Your task to perform on an android device: toggle location history Image 0: 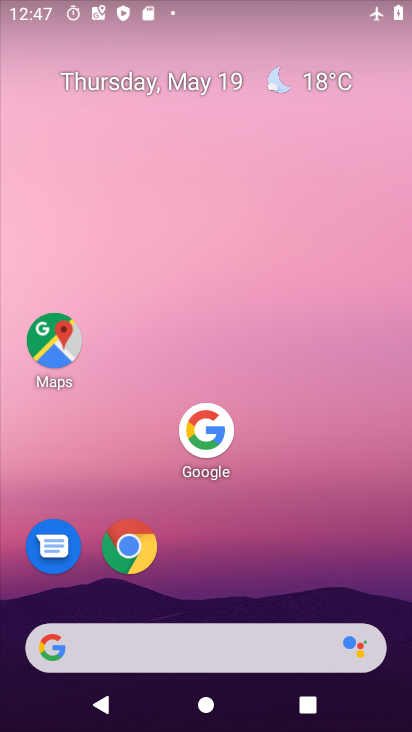
Step 0: drag from (266, 570) to (257, 86)
Your task to perform on an android device: toggle location history Image 1: 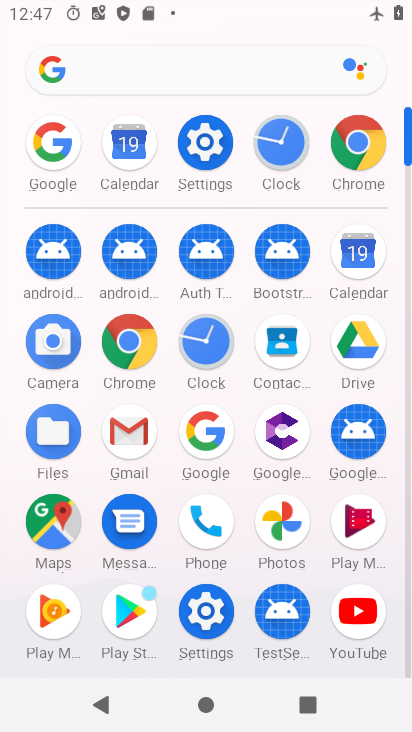
Step 1: click (204, 146)
Your task to perform on an android device: toggle location history Image 2: 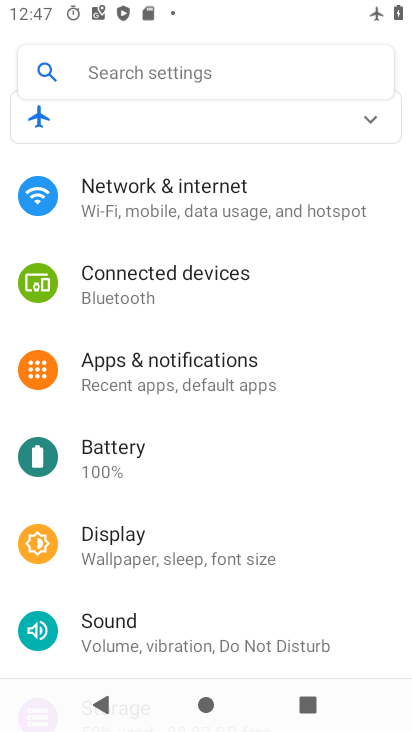
Step 2: drag from (245, 600) to (292, 157)
Your task to perform on an android device: toggle location history Image 3: 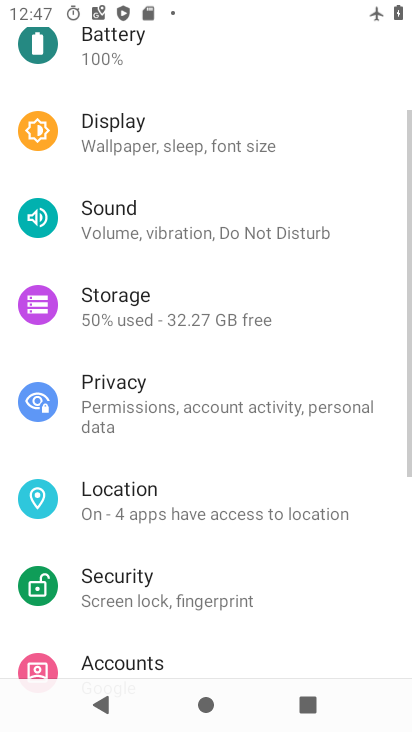
Step 3: drag from (249, 568) to (269, 232)
Your task to perform on an android device: toggle location history Image 4: 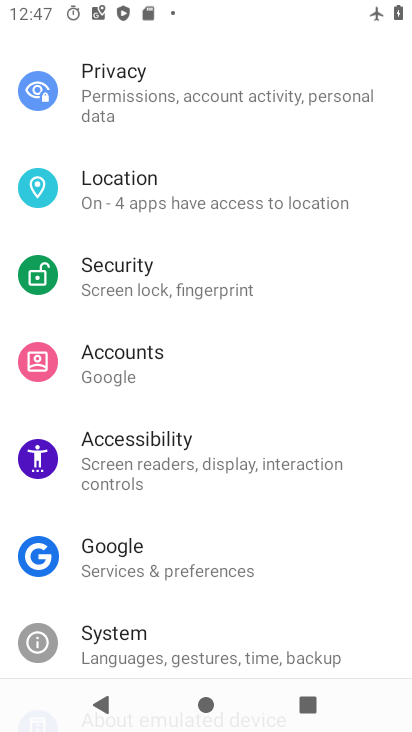
Step 4: click (138, 195)
Your task to perform on an android device: toggle location history Image 5: 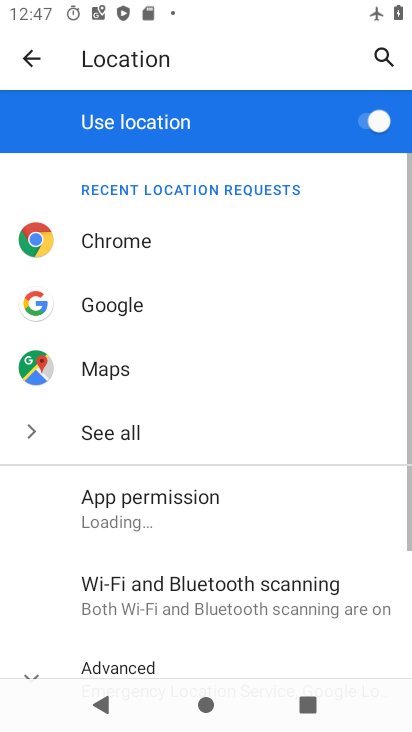
Step 5: drag from (267, 596) to (280, 150)
Your task to perform on an android device: toggle location history Image 6: 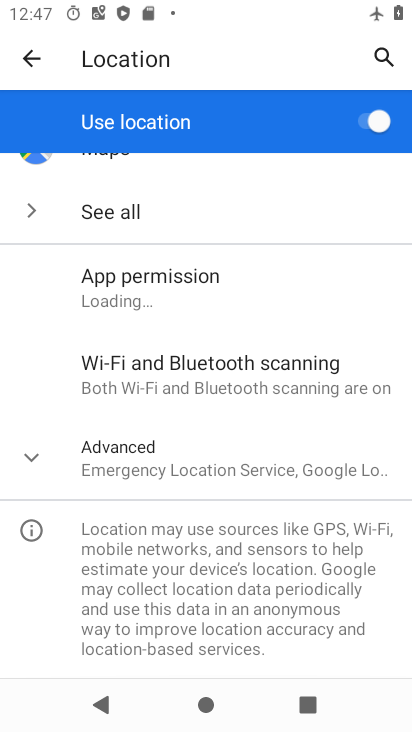
Step 6: click (156, 466)
Your task to perform on an android device: toggle location history Image 7: 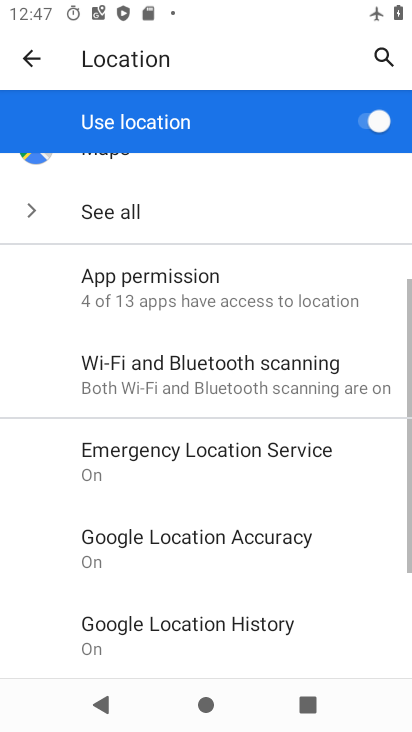
Step 7: drag from (269, 604) to (277, 377)
Your task to perform on an android device: toggle location history Image 8: 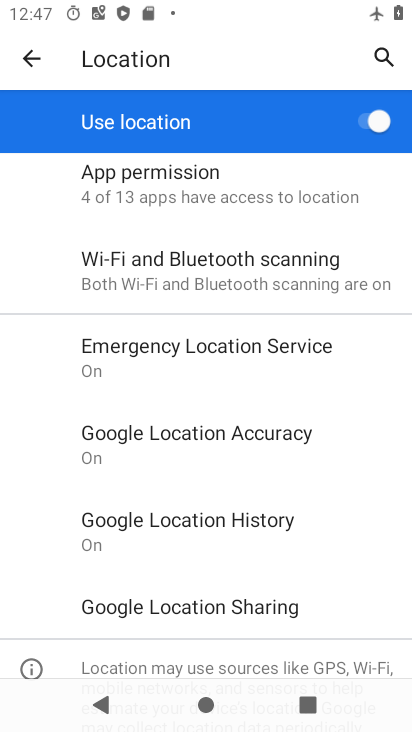
Step 8: click (219, 518)
Your task to perform on an android device: toggle location history Image 9: 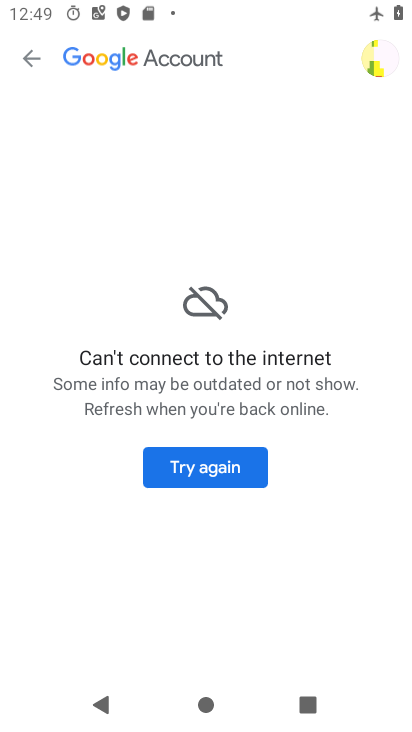
Step 9: task complete